Your task to perform on an android device: read, delete, or share a saved page in the chrome app Image 0: 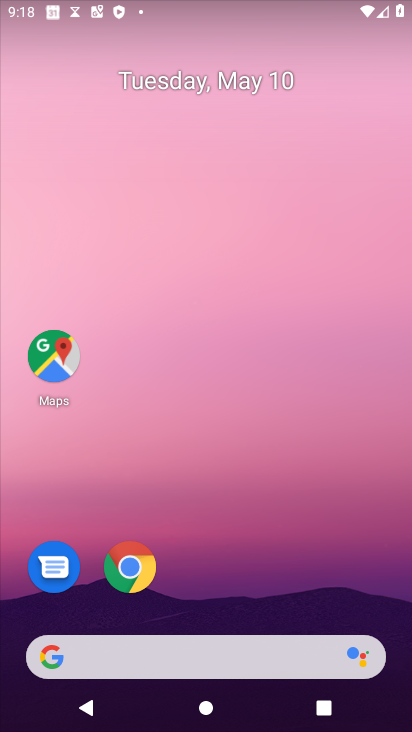
Step 0: drag from (36, 463) to (151, 164)
Your task to perform on an android device: read, delete, or share a saved page in the chrome app Image 1: 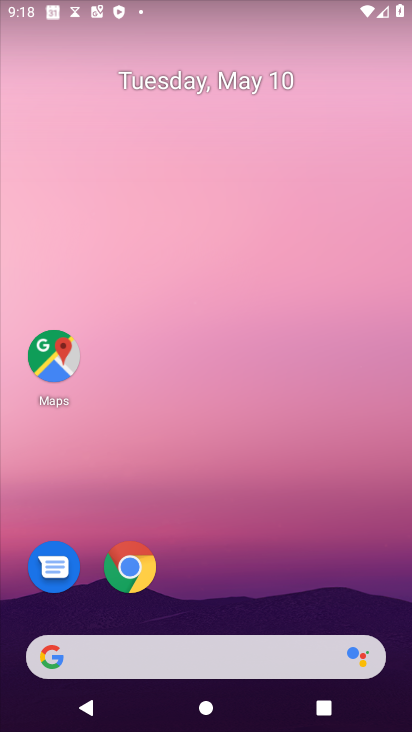
Step 1: click (130, 558)
Your task to perform on an android device: read, delete, or share a saved page in the chrome app Image 2: 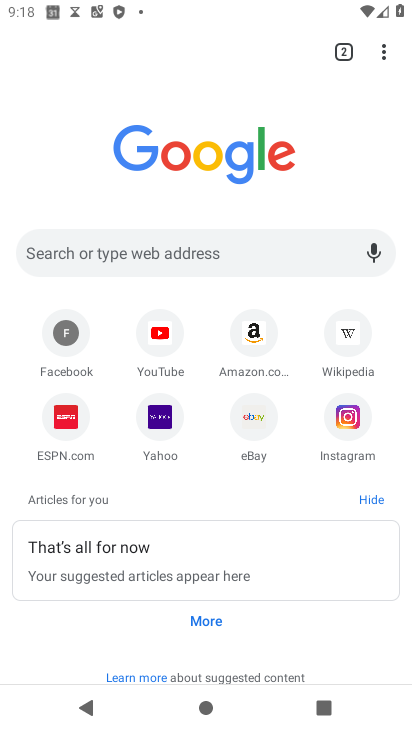
Step 2: click (152, 340)
Your task to perform on an android device: read, delete, or share a saved page in the chrome app Image 3: 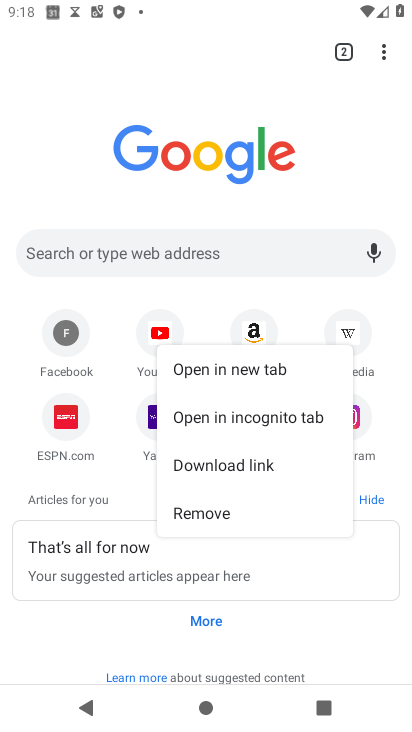
Step 3: click (217, 517)
Your task to perform on an android device: read, delete, or share a saved page in the chrome app Image 4: 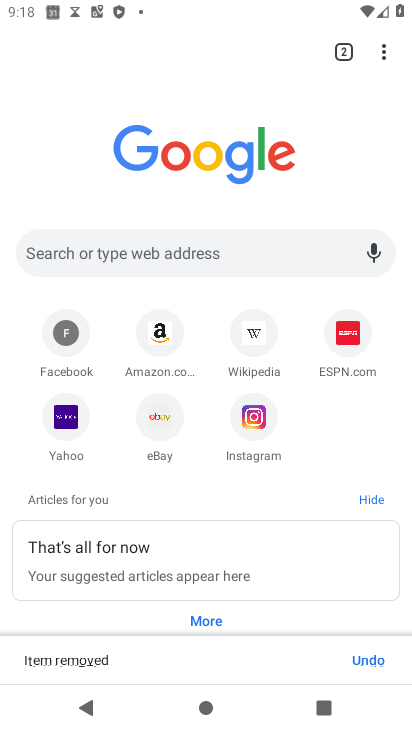
Step 4: task complete